Your task to perform on an android device: turn on the 24-hour format for clock Image 0: 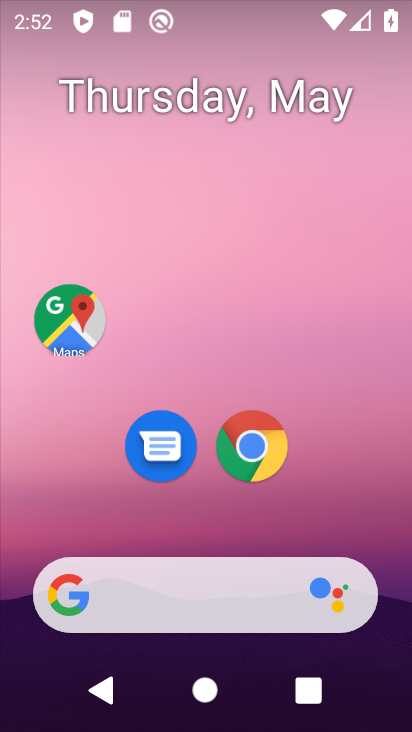
Step 0: drag from (353, 538) to (373, 16)
Your task to perform on an android device: turn on the 24-hour format for clock Image 1: 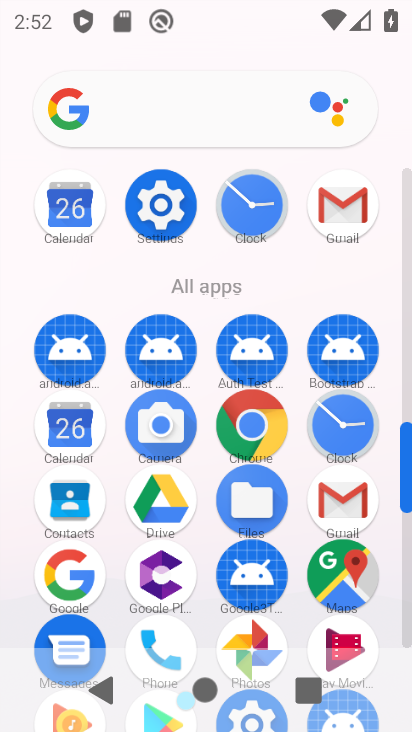
Step 1: click (244, 213)
Your task to perform on an android device: turn on the 24-hour format for clock Image 2: 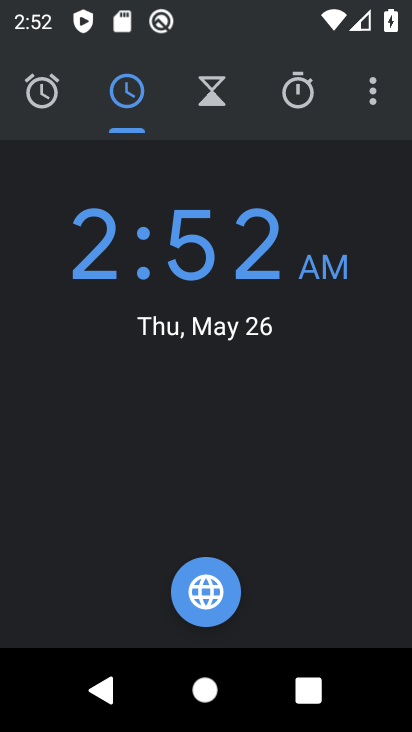
Step 2: click (374, 92)
Your task to perform on an android device: turn on the 24-hour format for clock Image 3: 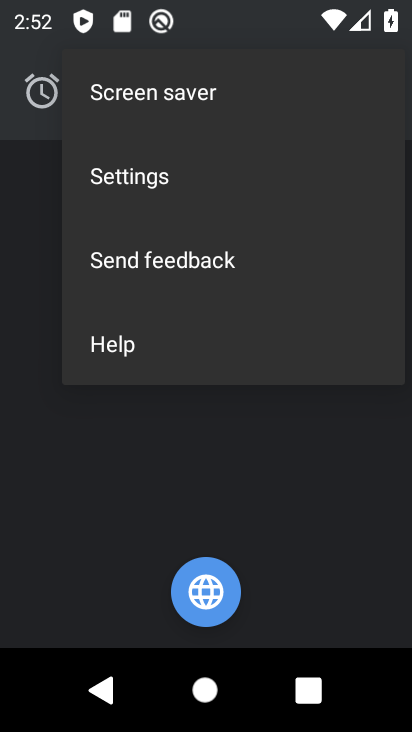
Step 3: click (137, 180)
Your task to perform on an android device: turn on the 24-hour format for clock Image 4: 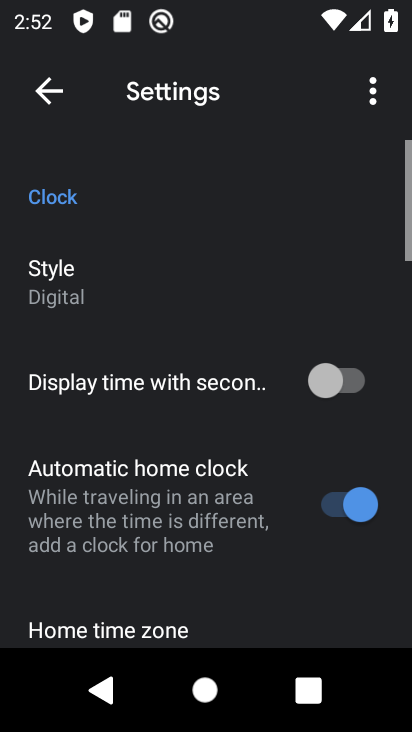
Step 4: drag from (173, 490) to (182, 191)
Your task to perform on an android device: turn on the 24-hour format for clock Image 5: 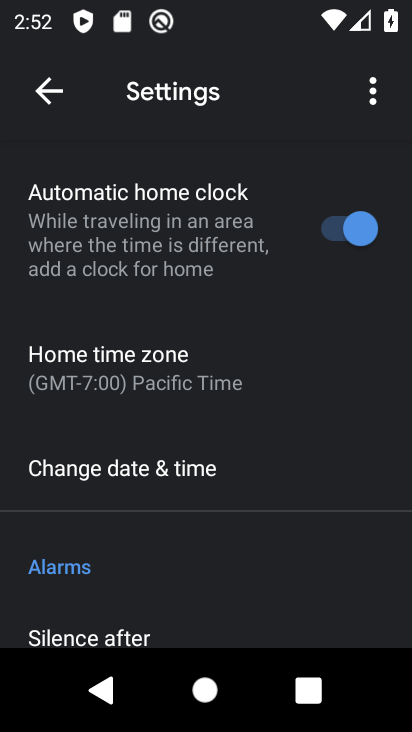
Step 5: click (133, 475)
Your task to perform on an android device: turn on the 24-hour format for clock Image 6: 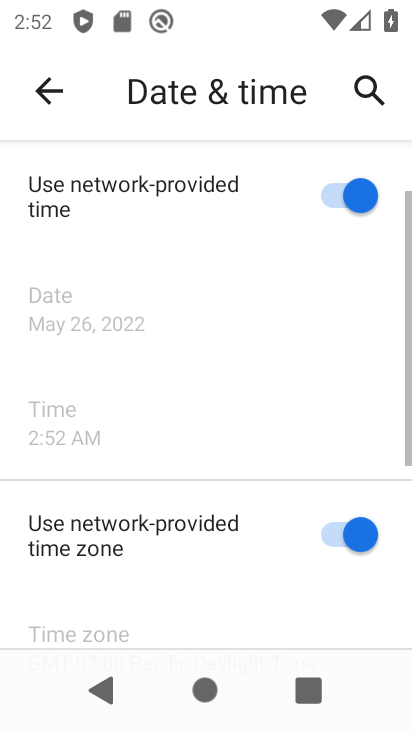
Step 6: drag from (251, 578) to (256, 211)
Your task to perform on an android device: turn on the 24-hour format for clock Image 7: 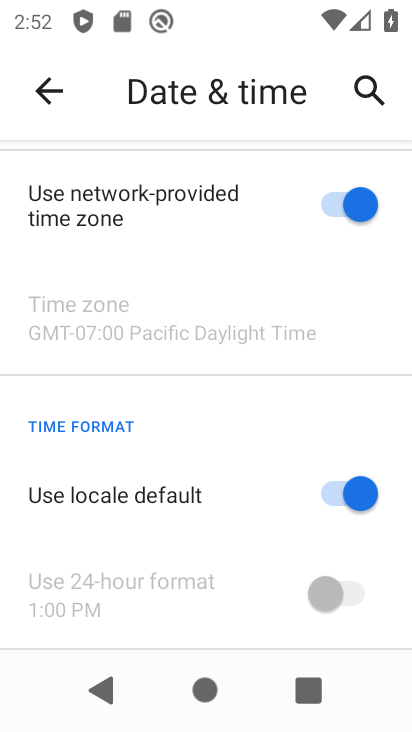
Step 7: drag from (189, 506) to (207, 322)
Your task to perform on an android device: turn on the 24-hour format for clock Image 8: 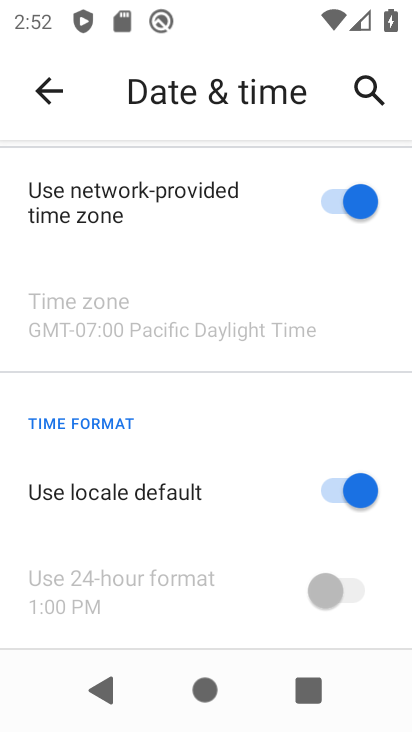
Step 8: click (366, 483)
Your task to perform on an android device: turn on the 24-hour format for clock Image 9: 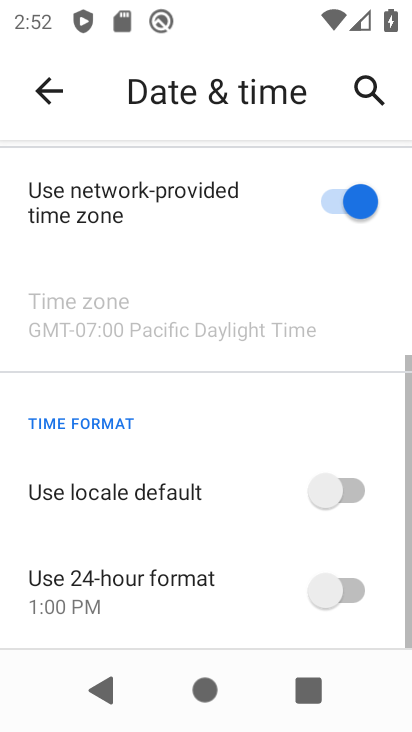
Step 9: click (328, 581)
Your task to perform on an android device: turn on the 24-hour format for clock Image 10: 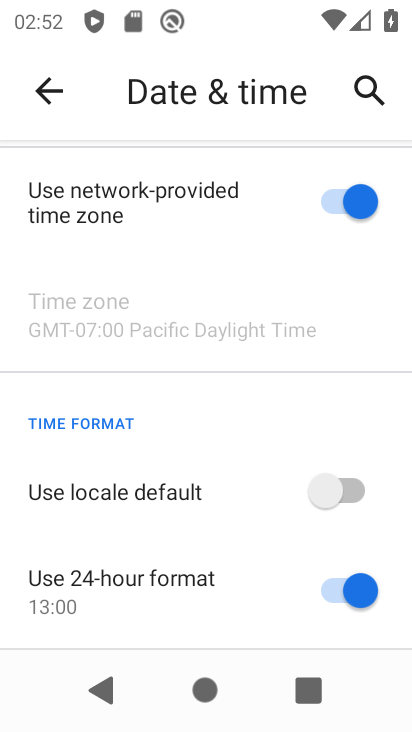
Step 10: task complete